Your task to perform on an android device: Is it going to rain tomorrow? Image 0: 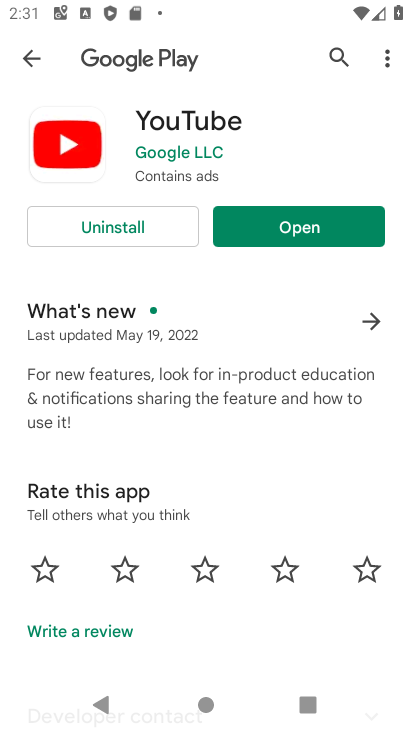
Step 0: press home button
Your task to perform on an android device: Is it going to rain tomorrow? Image 1: 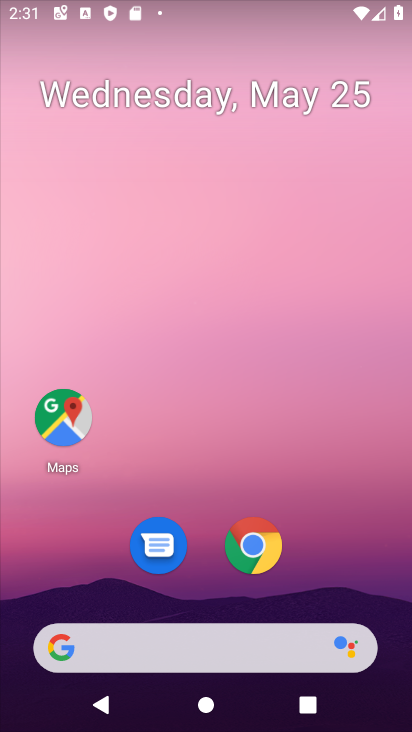
Step 1: click (201, 643)
Your task to perform on an android device: Is it going to rain tomorrow? Image 2: 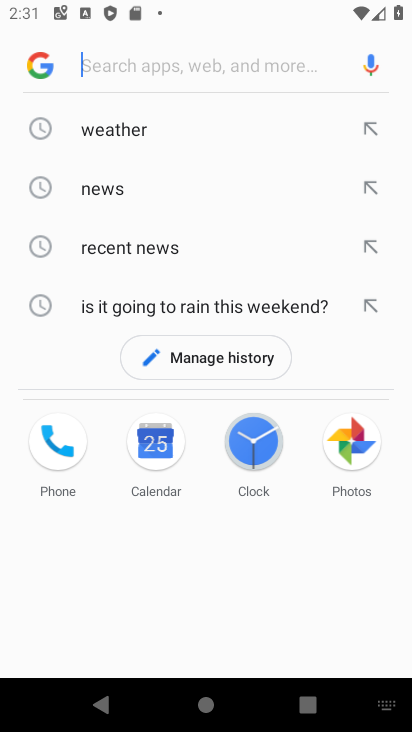
Step 2: click (190, 121)
Your task to perform on an android device: Is it going to rain tomorrow? Image 3: 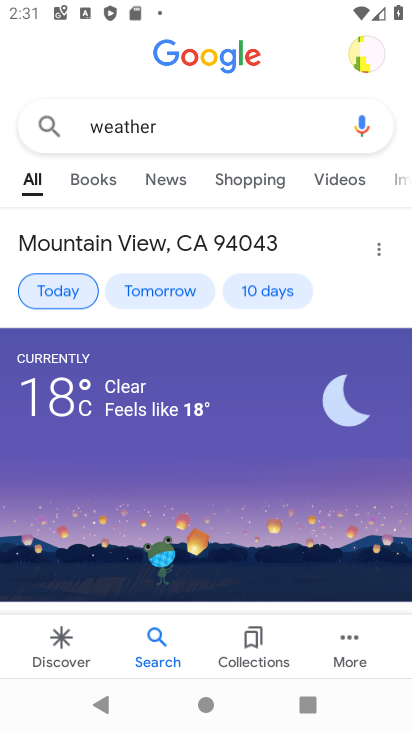
Step 3: click (169, 290)
Your task to perform on an android device: Is it going to rain tomorrow? Image 4: 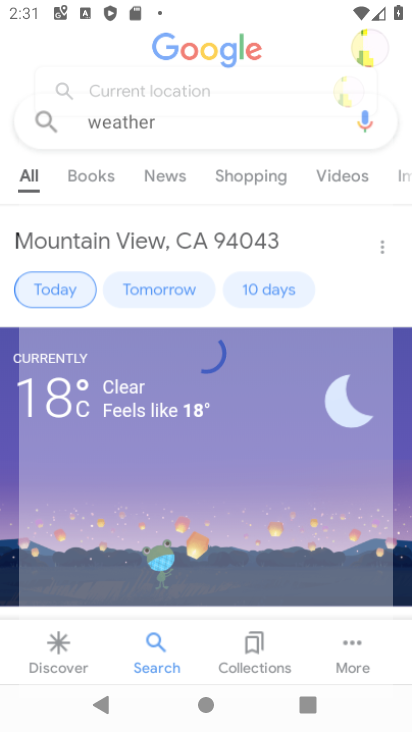
Step 4: click (169, 290)
Your task to perform on an android device: Is it going to rain tomorrow? Image 5: 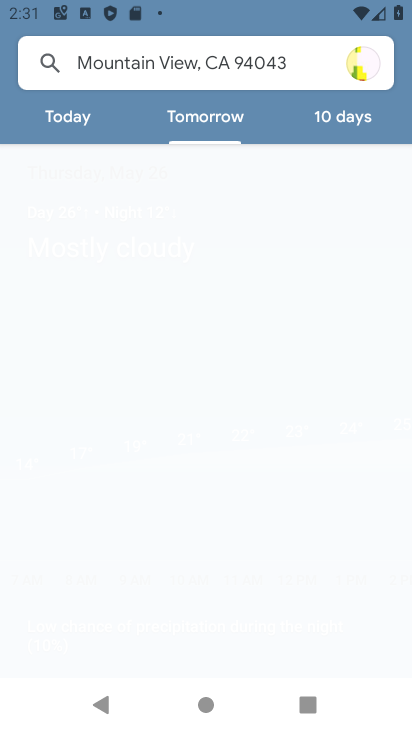
Step 5: task complete